Your task to perform on an android device: turn on priority inbox in the gmail app Image 0: 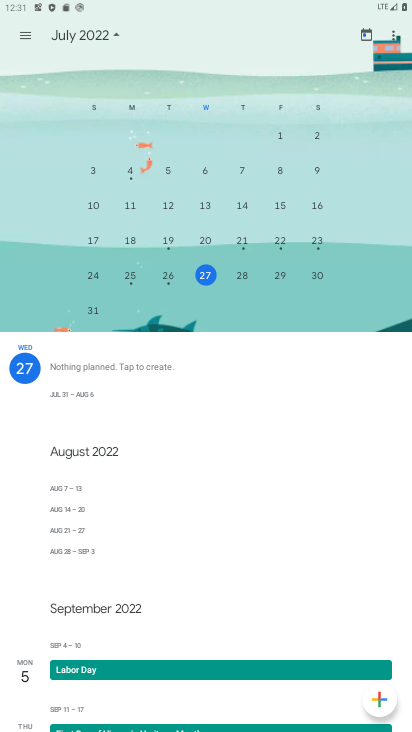
Step 0: press home button
Your task to perform on an android device: turn on priority inbox in the gmail app Image 1: 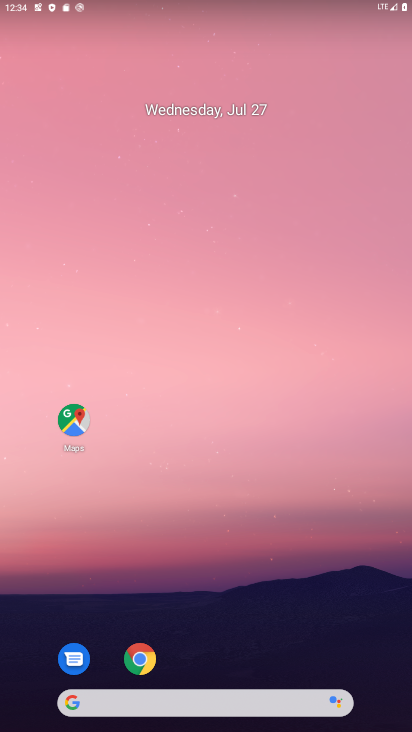
Step 1: drag from (285, 619) to (303, 130)
Your task to perform on an android device: turn on priority inbox in the gmail app Image 2: 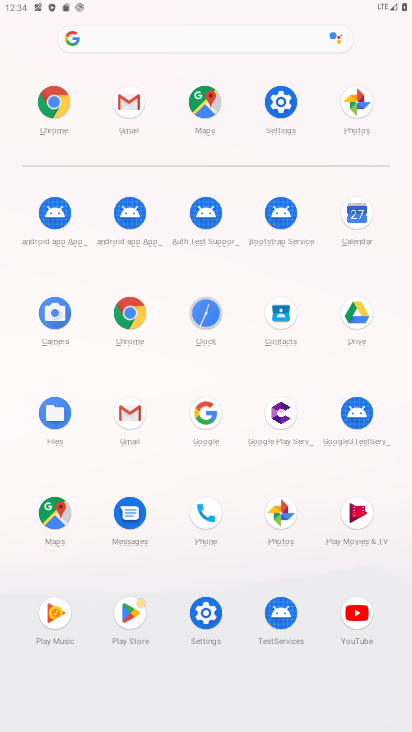
Step 2: click (133, 413)
Your task to perform on an android device: turn on priority inbox in the gmail app Image 3: 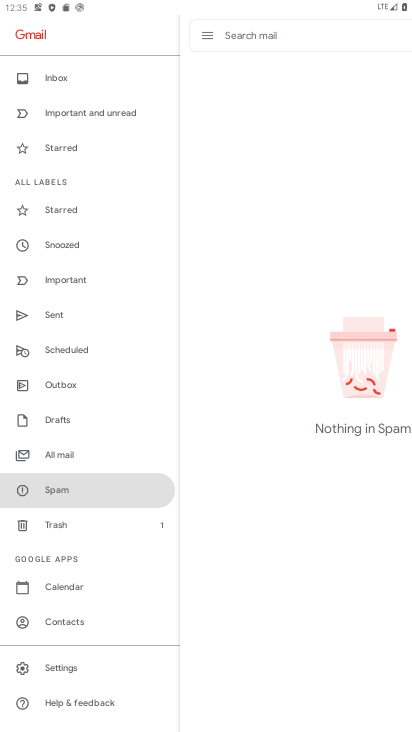
Step 3: click (78, 666)
Your task to perform on an android device: turn on priority inbox in the gmail app Image 4: 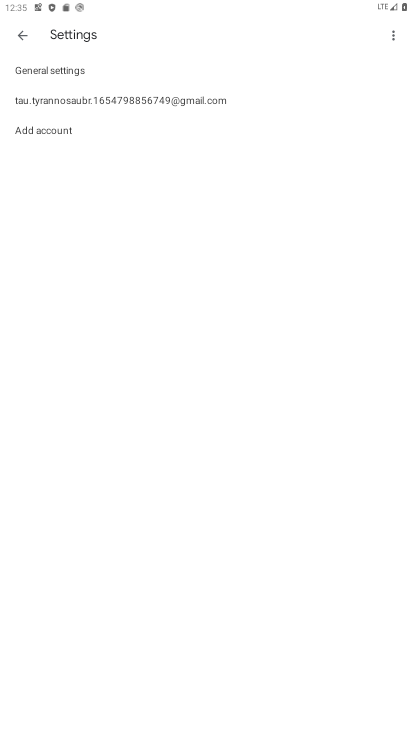
Step 4: click (147, 92)
Your task to perform on an android device: turn on priority inbox in the gmail app Image 5: 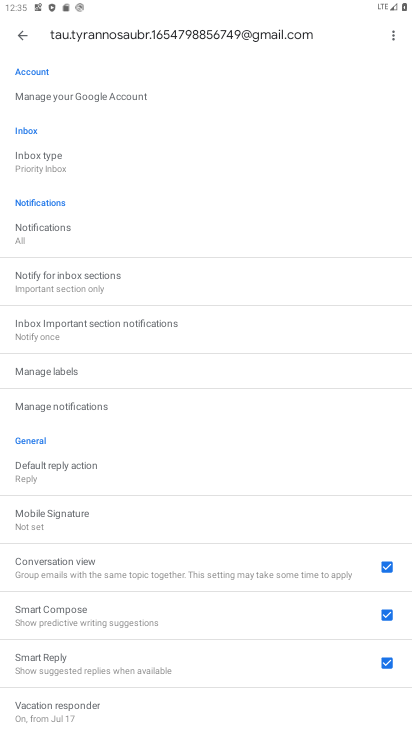
Step 5: click (94, 165)
Your task to perform on an android device: turn on priority inbox in the gmail app Image 6: 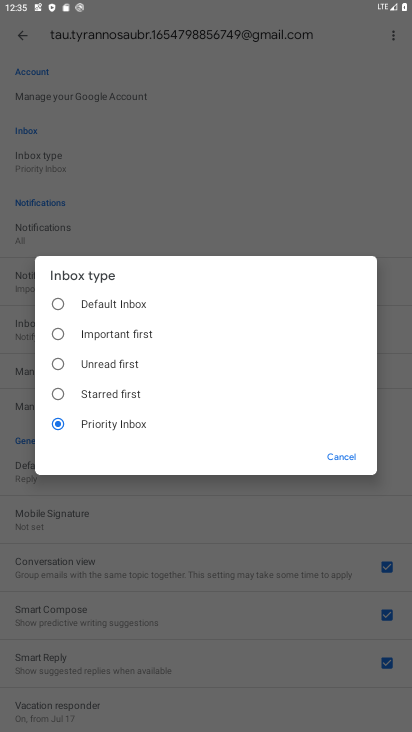
Step 6: task complete